Your task to perform on an android device: Toggle the flashlight Image 0: 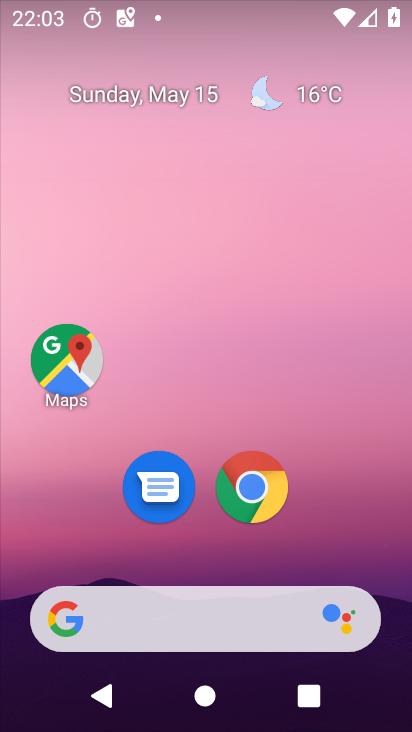
Step 0: click (381, 246)
Your task to perform on an android device: Toggle the flashlight Image 1: 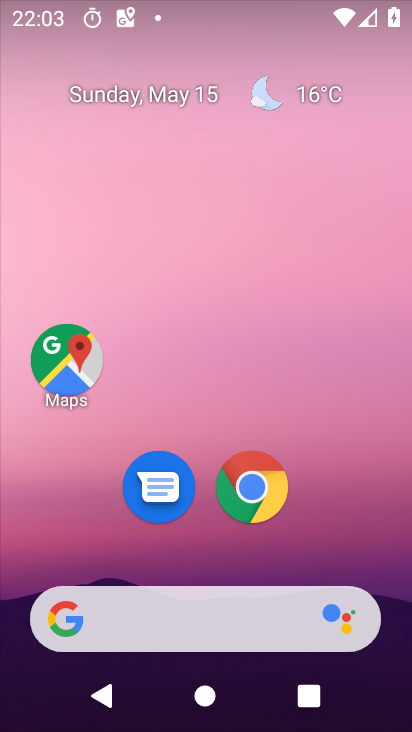
Step 1: click (409, 652)
Your task to perform on an android device: Toggle the flashlight Image 2: 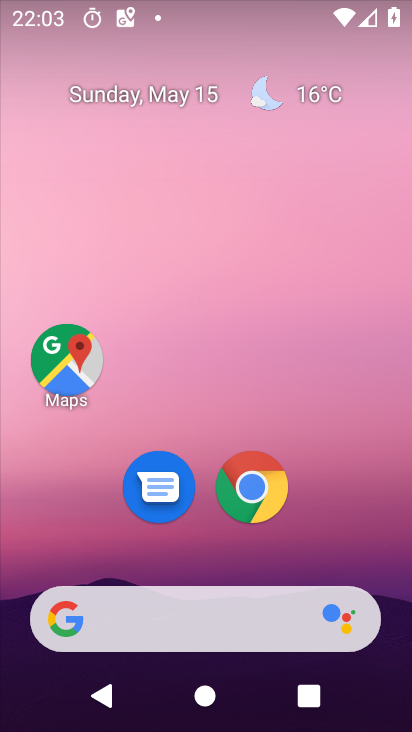
Step 2: drag from (407, 648) to (402, 255)
Your task to perform on an android device: Toggle the flashlight Image 3: 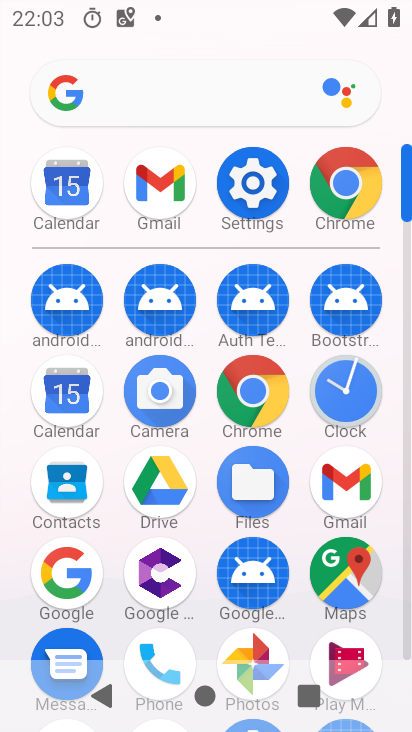
Step 3: click (253, 179)
Your task to perform on an android device: Toggle the flashlight Image 4: 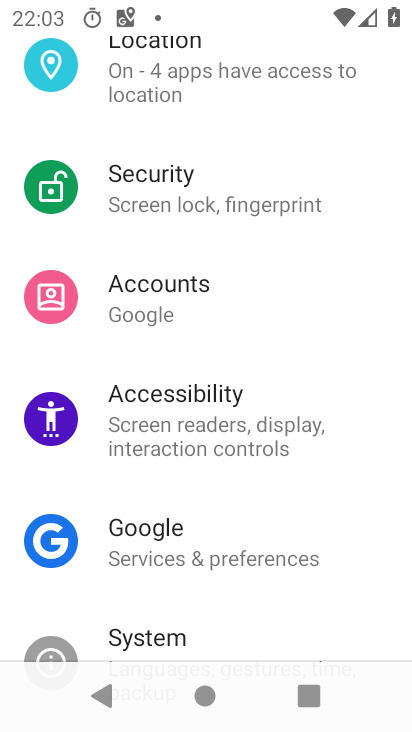
Step 4: click (175, 424)
Your task to perform on an android device: Toggle the flashlight Image 5: 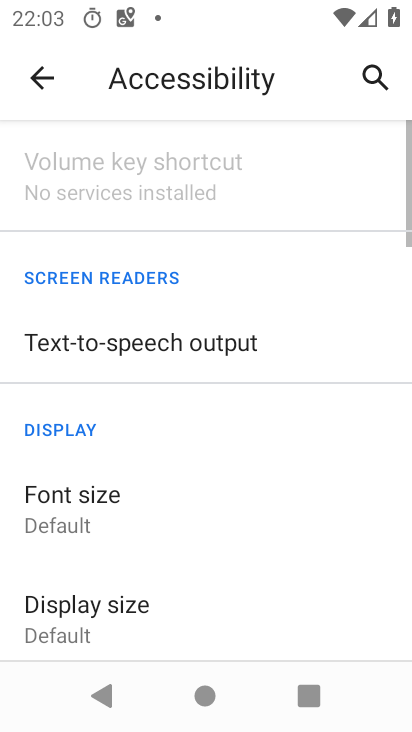
Step 5: task complete